Your task to perform on an android device: star an email in the gmail app Image 0: 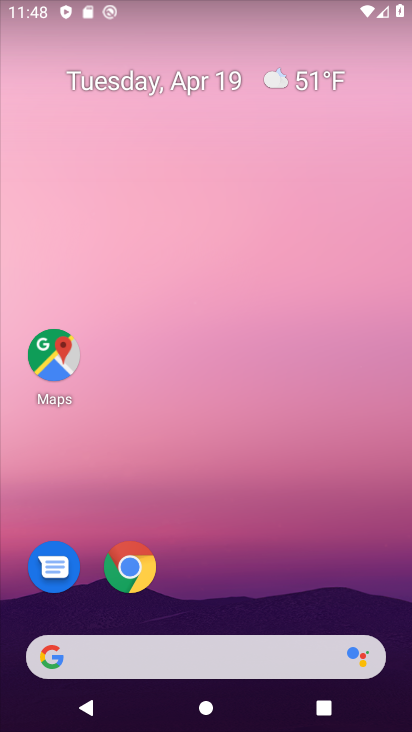
Step 0: drag from (197, 332) to (279, 1)
Your task to perform on an android device: star an email in the gmail app Image 1: 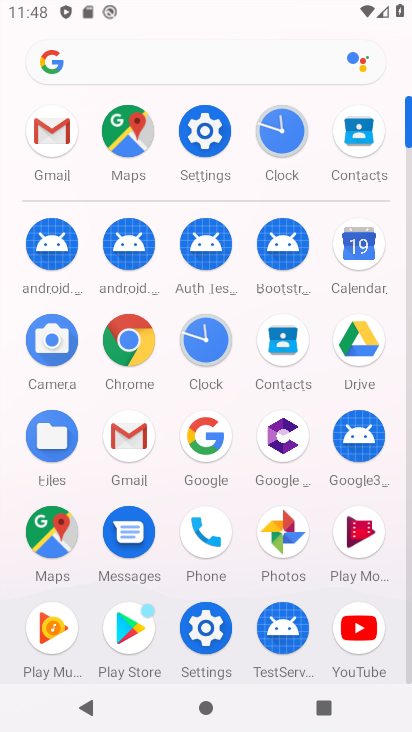
Step 1: click (125, 441)
Your task to perform on an android device: star an email in the gmail app Image 2: 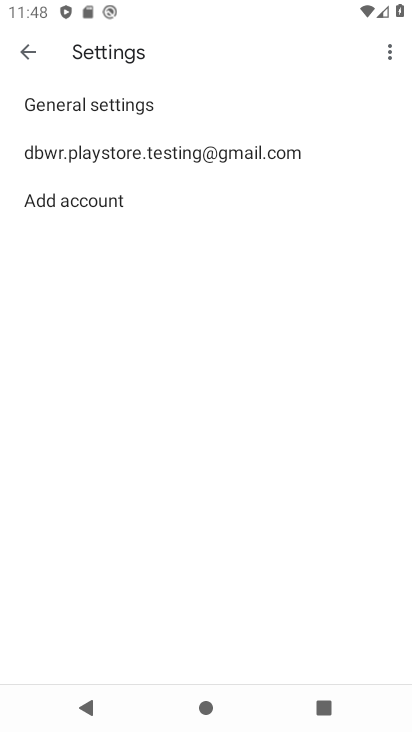
Step 2: click (29, 46)
Your task to perform on an android device: star an email in the gmail app Image 3: 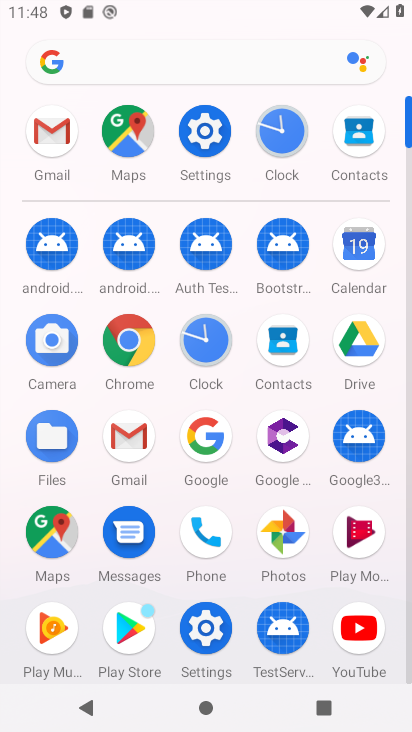
Step 3: click (136, 405)
Your task to perform on an android device: star an email in the gmail app Image 4: 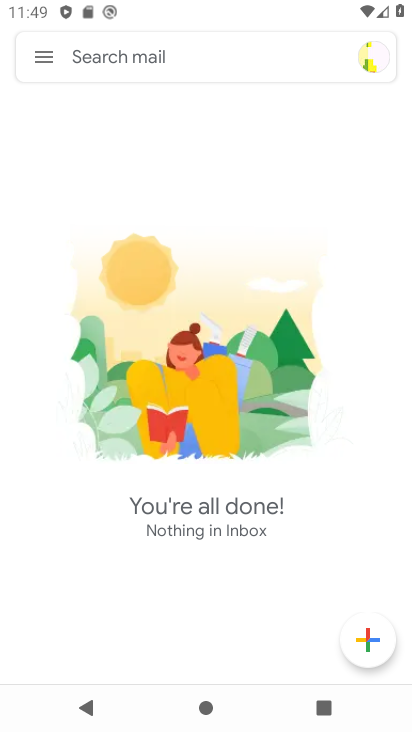
Step 4: click (39, 57)
Your task to perform on an android device: star an email in the gmail app Image 5: 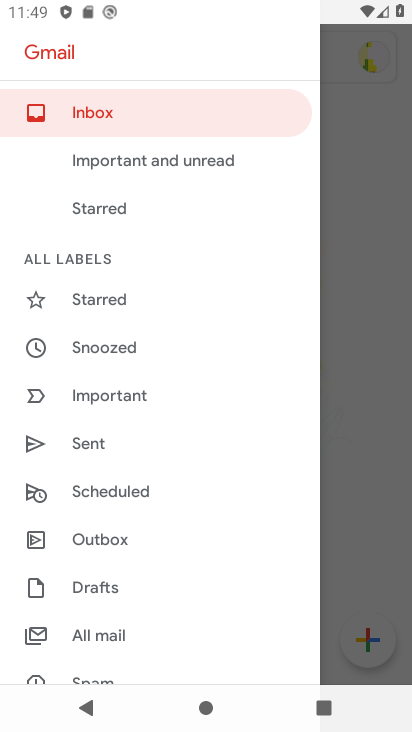
Step 5: click (110, 631)
Your task to perform on an android device: star an email in the gmail app Image 6: 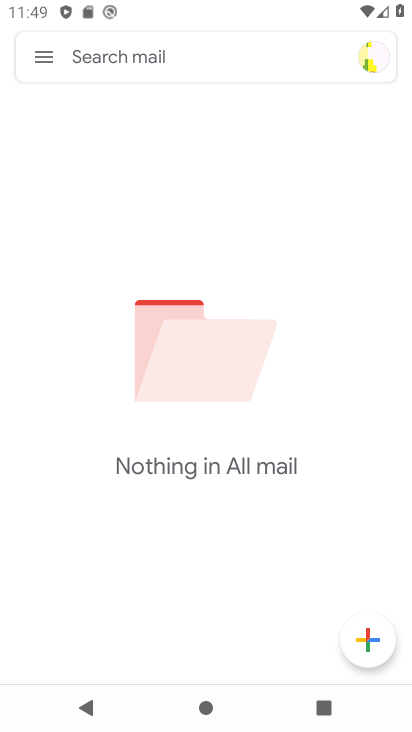
Step 6: task complete